Your task to perform on an android device: empty trash in the gmail app Image 0: 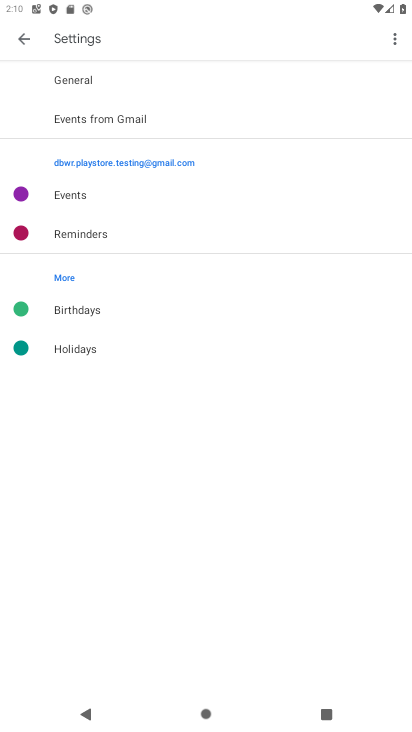
Step 0: press home button
Your task to perform on an android device: empty trash in the gmail app Image 1: 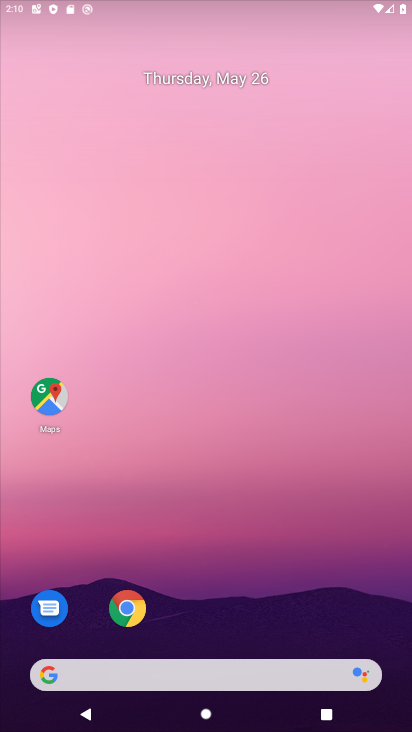
Step 1: drag from (303, 571) to (261, 13)
Your task to perform on an android device: empty trash in the gmail app Image 2: 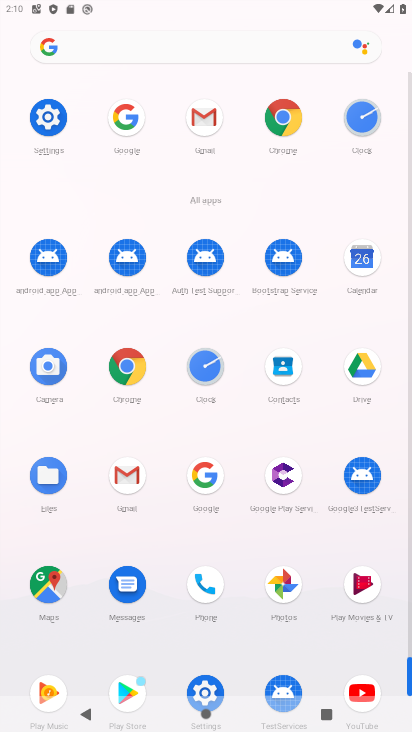
Step 2: click (198, 187)
Your task to perform on an android device: empty trash in the gmail app Image 3: 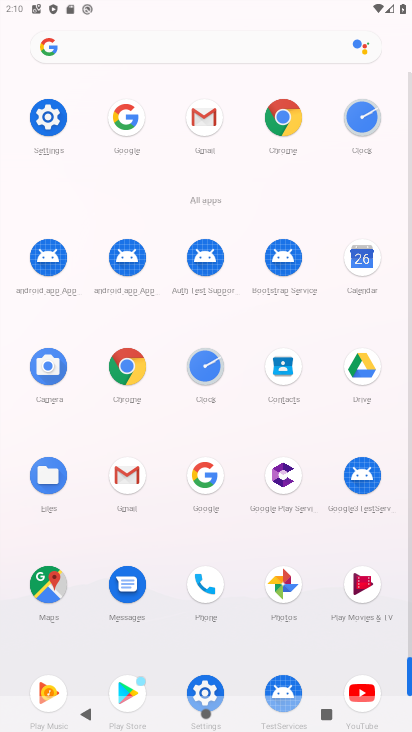
Step 3: click (212, 143)
Your task to perform on an android device: empty trash in the gmail app Image 4: 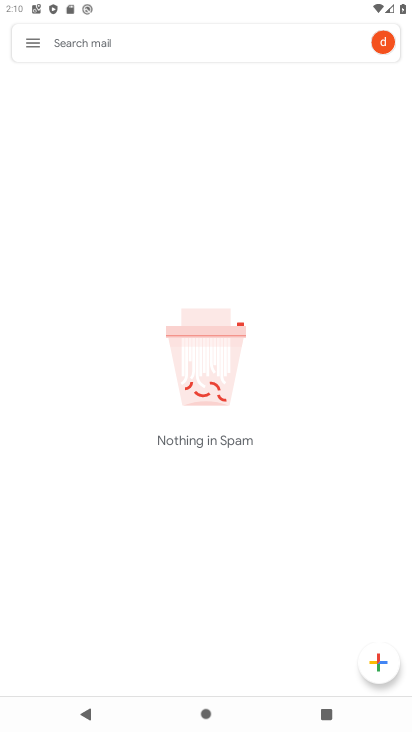
Step 4: click (27, 43)
Your task to perform on an android device: empty trash in the gmail app Image 5: 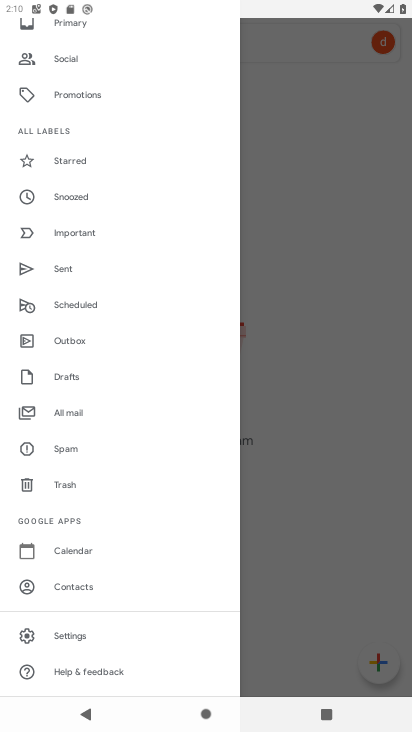
Step 5: click (54, 485)
Your task to perform on an android device: empty trash in the gmail app Image 6: 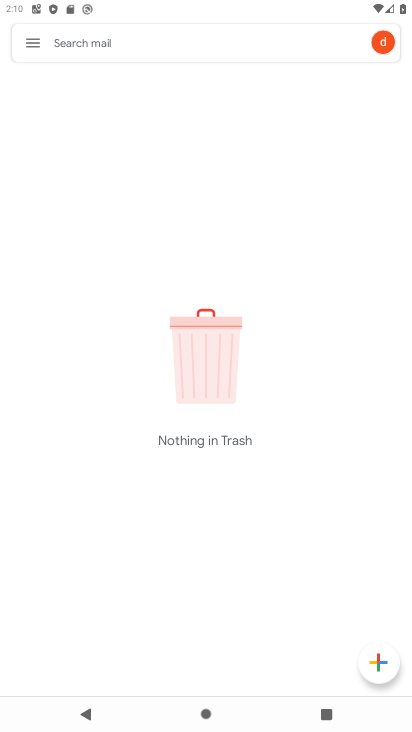
Step 6: task complete